Your task to perform on an android device: turn on sleep mode Image 0: 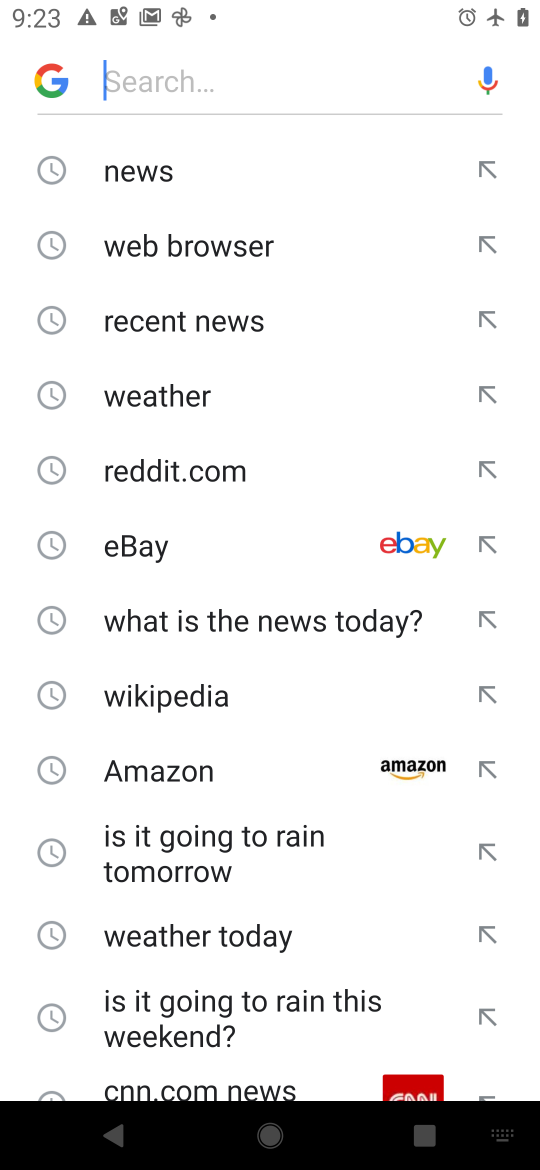
Step 0: press home button
Your task to perform on an android device: turn on sleep mode Image 1: 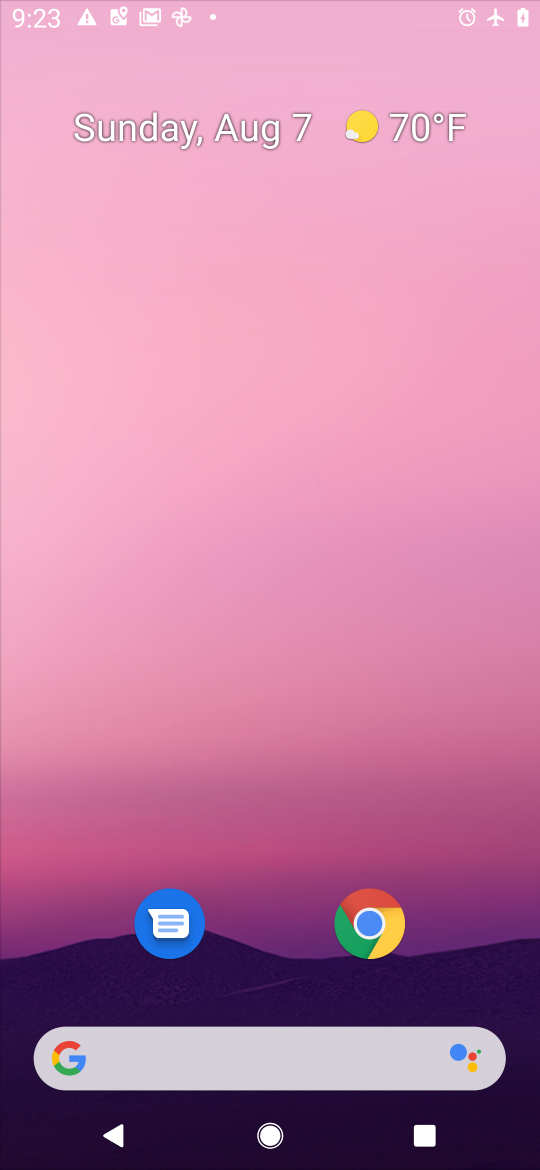
Step 1: drag from (516, 1015) to (256, 41)
Your task to perform on an android device: turn on sleep mode Image 2: 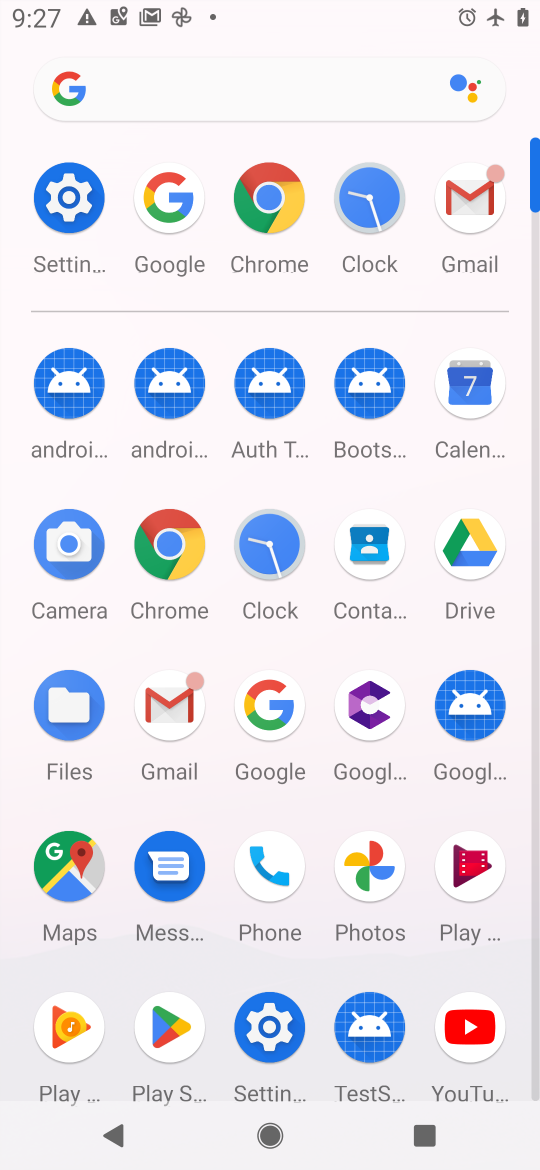
Step 2: click (284, 1019)
Your task to perform on an android device: turn on sleep mode Image 3: 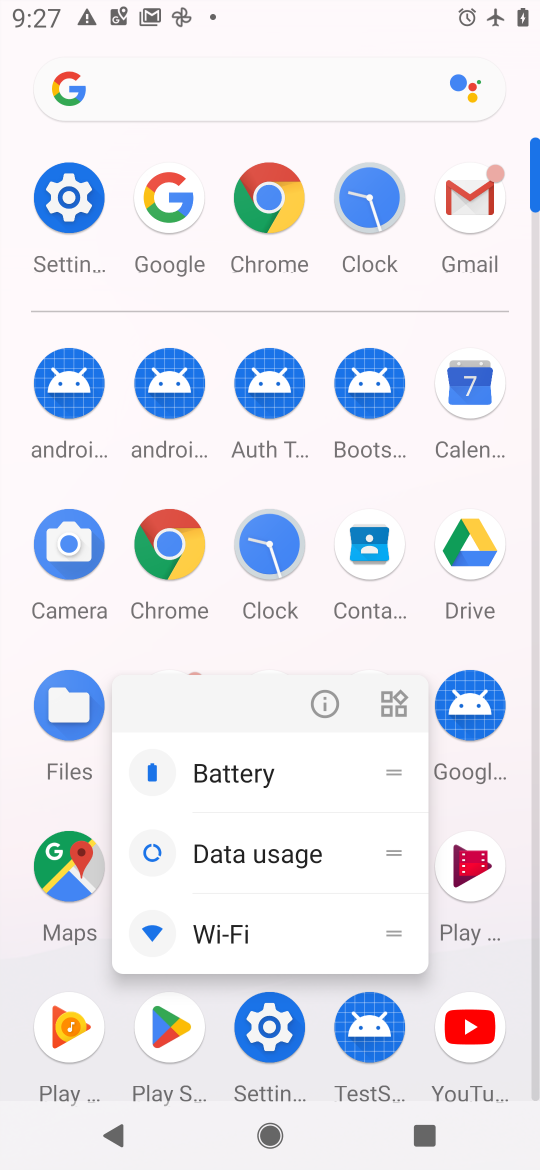
Step 3: click (298, 1012)
Your task to perform on an android device: turn on sleep mode Image 4: 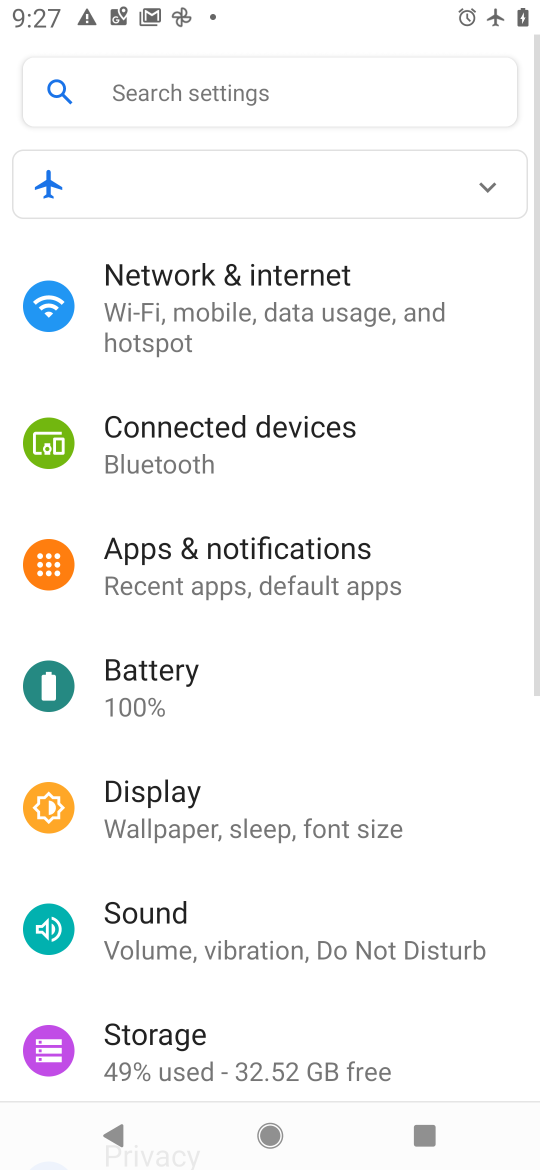
Step 4: task complete